Your task to perform on an android device: Go to display settings Image 0: 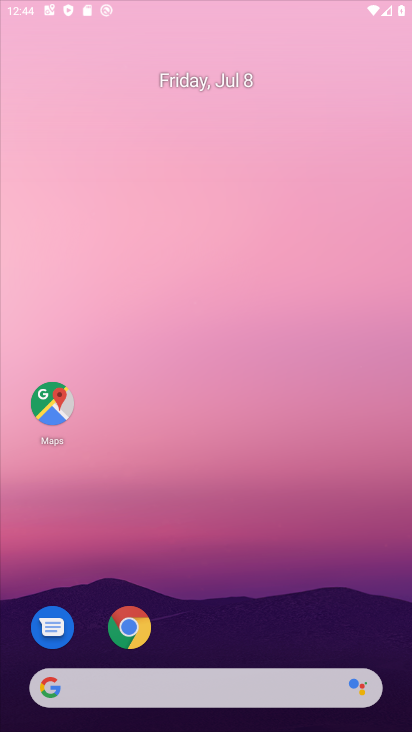
Step 0: drag from (380, 635) to (280, 139)
Your task to perform on an android device: Go to display settings Image 1: 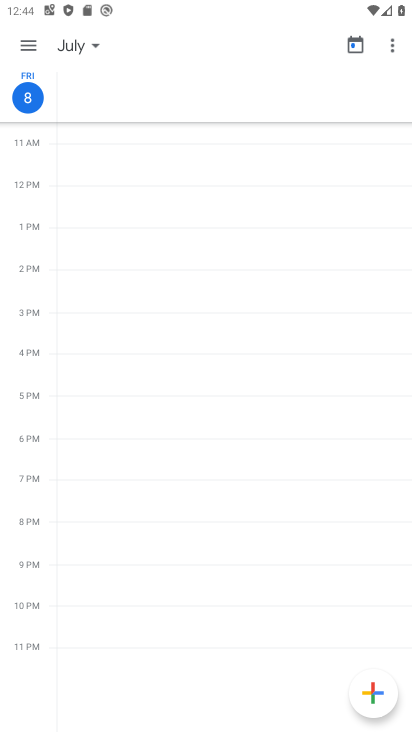
Step 1: press home button
Your task to perform on an android device: Go to display settings Image 2: 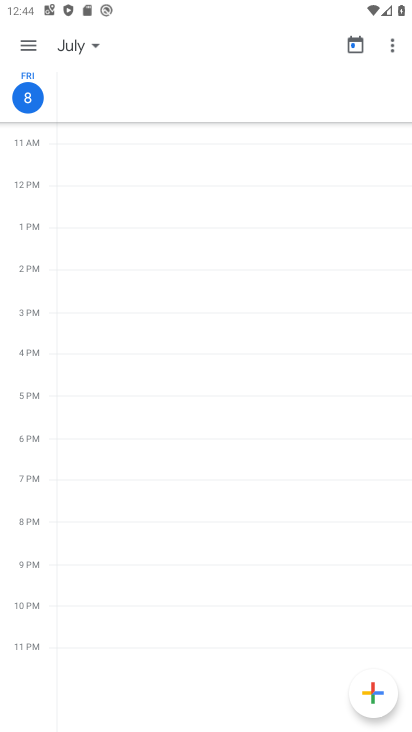
Step 2: drag from (354, 508) to (246, 31)
Your task to perform on an android device: Go to display settings Image 3: 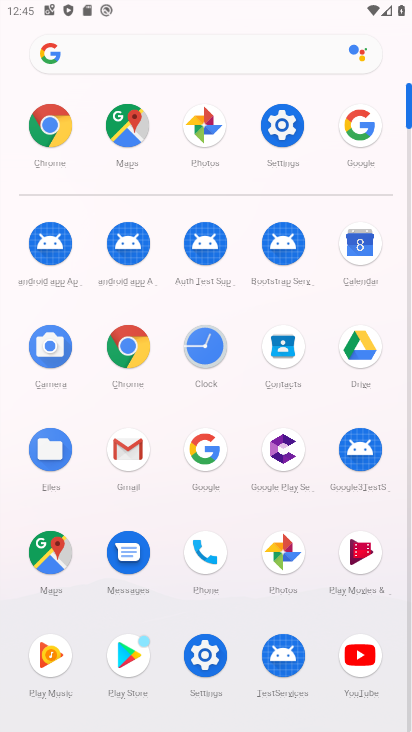
Step 3: click (253, 120)
Your task to perform on an android device: Go to display settings Image 4: 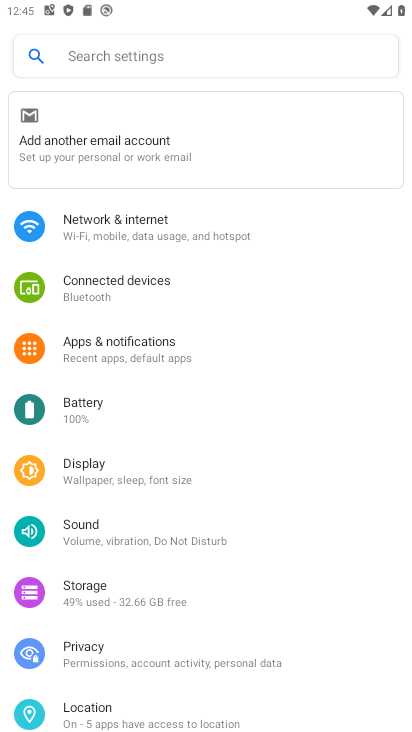
Step 4: click (115, 473)
Your task to perform on an android device: Go to display settings Image 5: 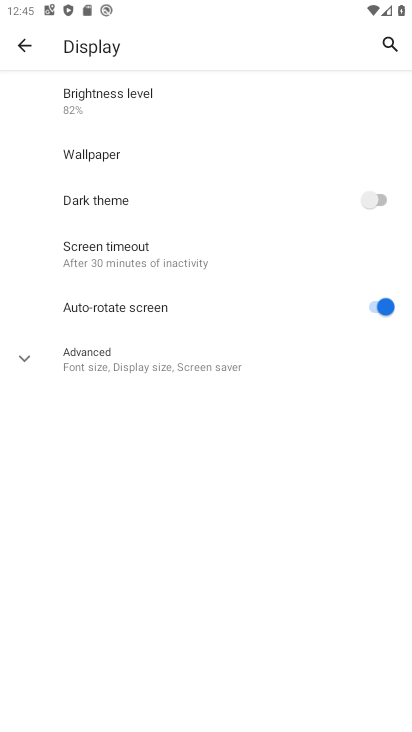
Step 5: task complete